Your task to perform on an android device: Go to calendar. Show me events next week Image 0: 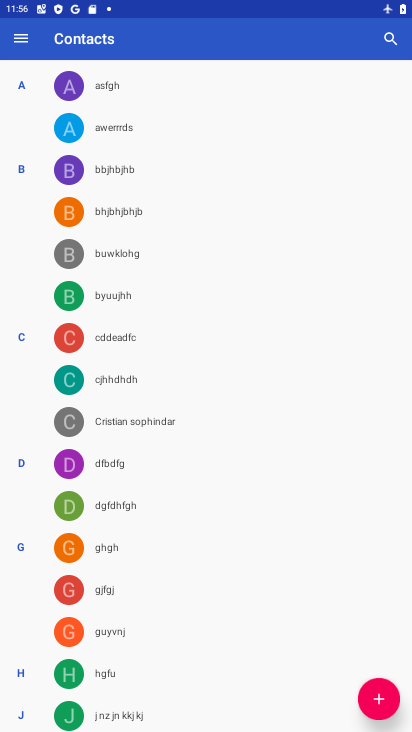
Step 0: press home button
Your task to perform on an android device: Go to calendar. Show me events next week Image 1: 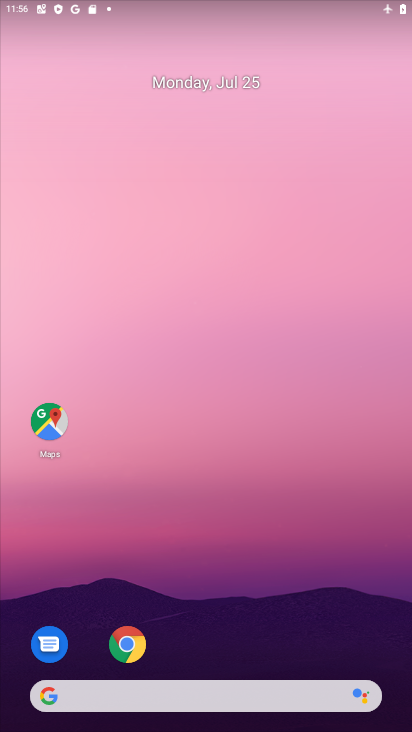
Step 1: drag from (262, 670) to (262, 3)
Your task to perform on an android device: Go to calendar. Show me events next week Image 2: 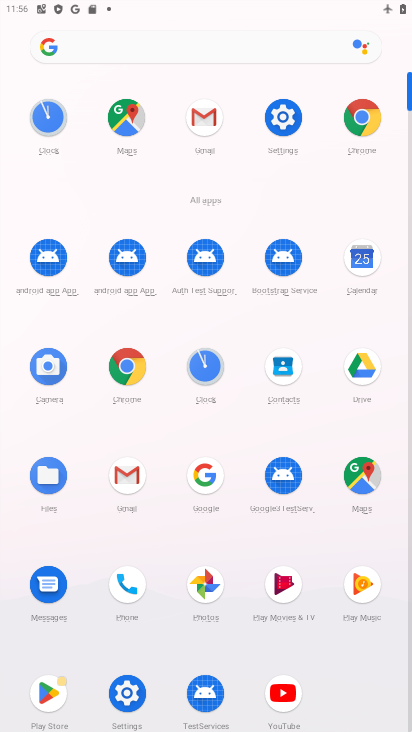
Step 2: click (358, 254)
Your task to perform on an android device: Go to calendar. Show me events next week Image 3: 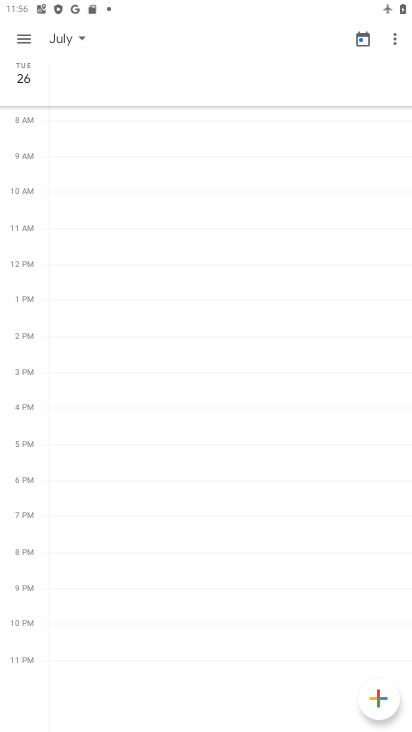
Step 3: click (33, 38)
Your task to perform on an android device: Go to calendar. Show me events next week Image 4: 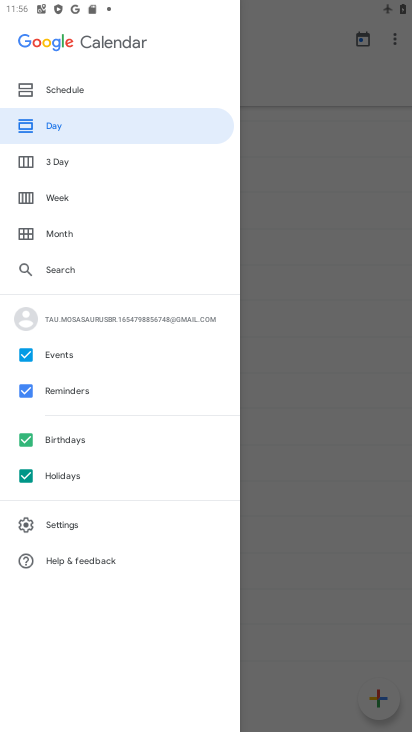
Step 4: click (55, 201)
Your task to perform on an android device: Go to calendar. Show me events next week Image 5: 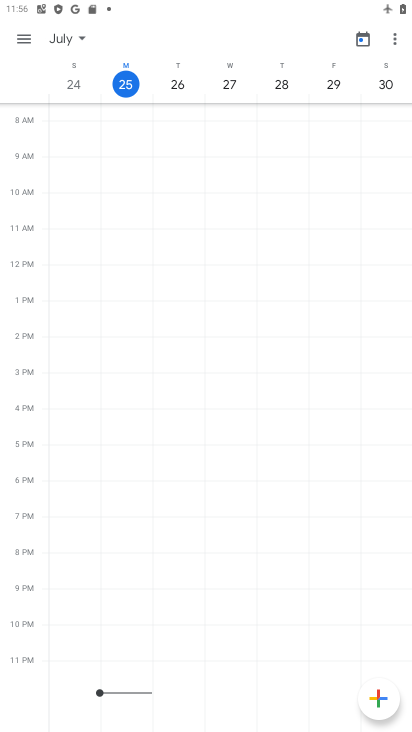
Step 5: click (25, 45)
Your task to perform on an android device: Go to calendar. Show me events next week Image 6: 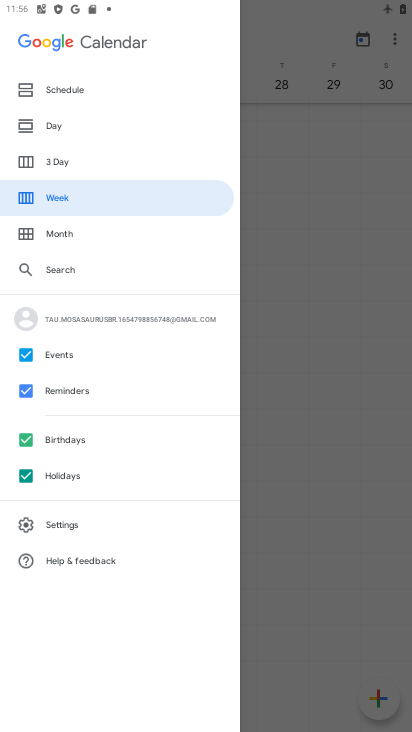
Step 6: click (26, 477)
Your task to perform on an android device: Go to calendar. Show me events next week Image 7: 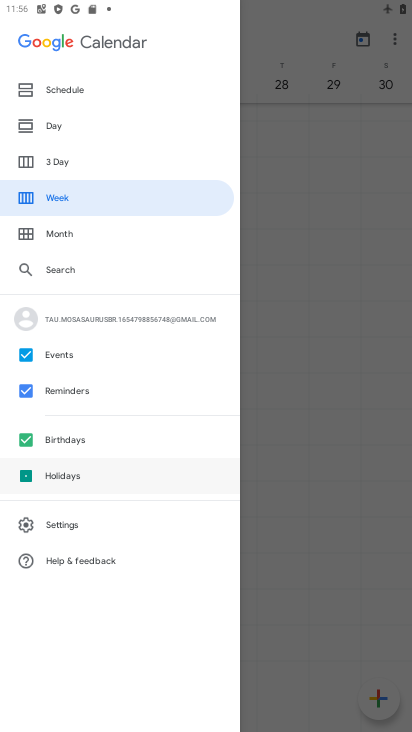
Step 7: click (33, 432)
Your task to perform on an android device: Go to calendar. Show me events next week Image 8: 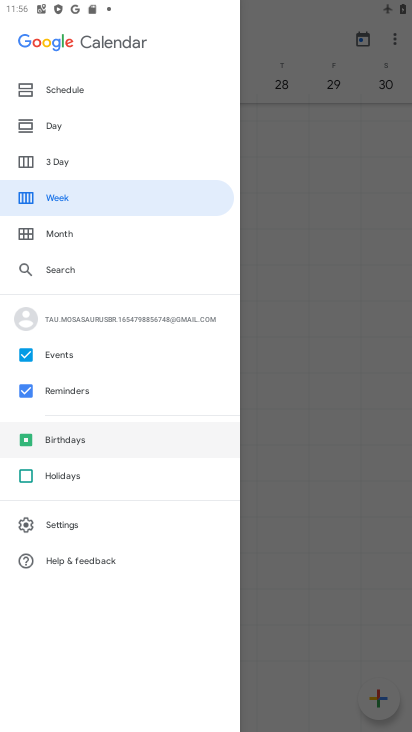
Step 8: click (25, 393)
Your task to perform on an android device: Go to calendar. Show me events next week Image 9: 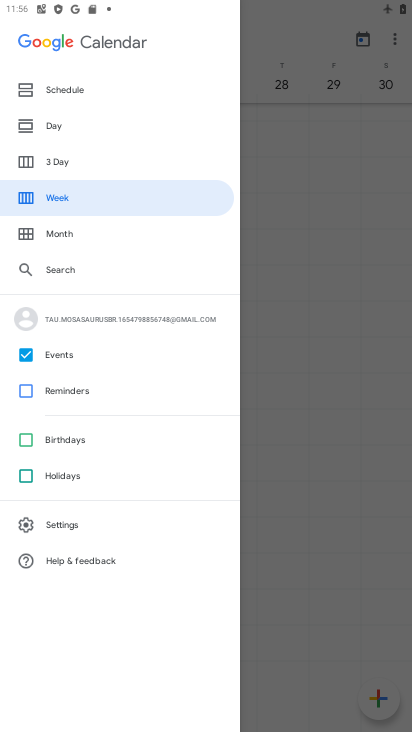
Step 9: click (49, 202)
Your task to perform on an android device: Go to calendar. Show me events next week Image 10: 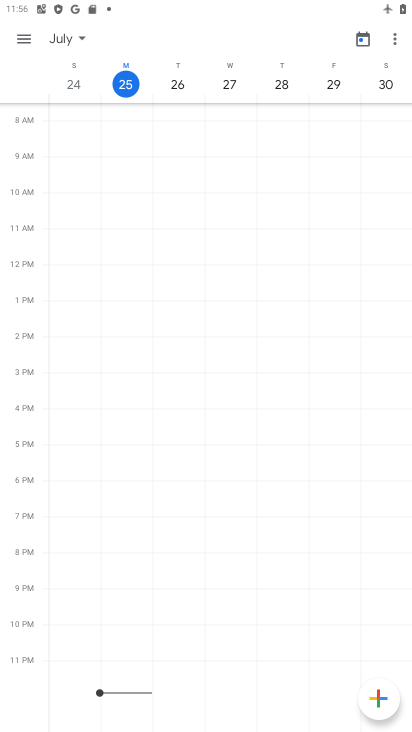
Step 10: task complete